Your task to perform on an android device: toggle wifi Image 0: 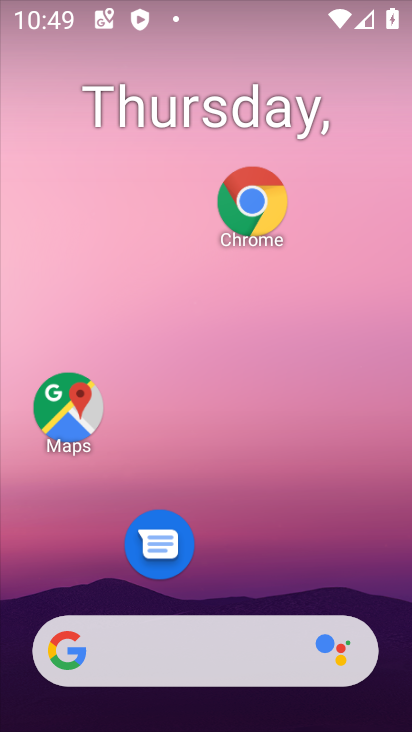
Step 0: drag from (218, 581) to (214, 102)
Your task to perform on an android device: toggle wifi Image 1: 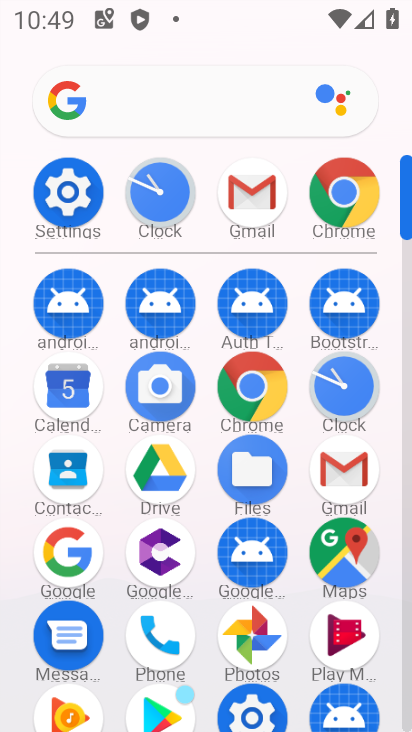
Step 1: click (64, 188)
Your task to perform on an android device: toggle wifi Image 2: 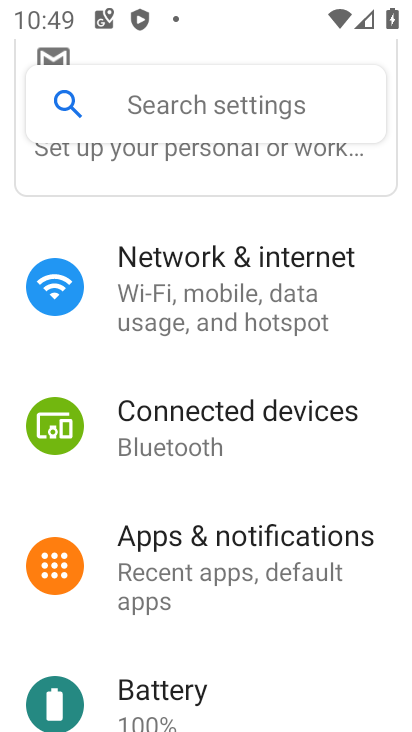
Step 2: click (199, 278)
Your task to perform on an android device: toggle wifi Image 3: 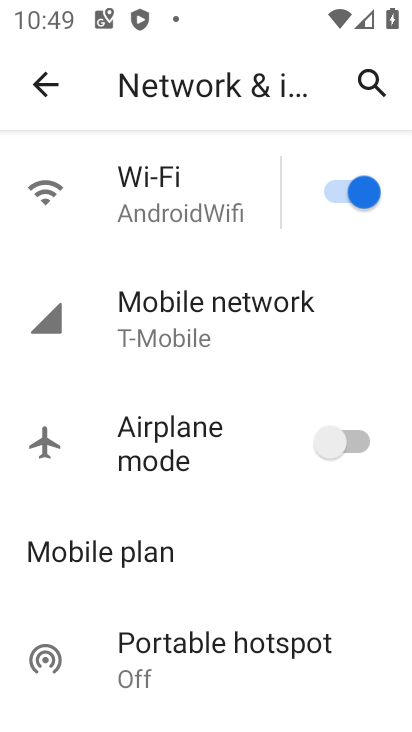
Step 3: click (222, 174)
Your task to perform on an android device: toggle wifi Image 4: 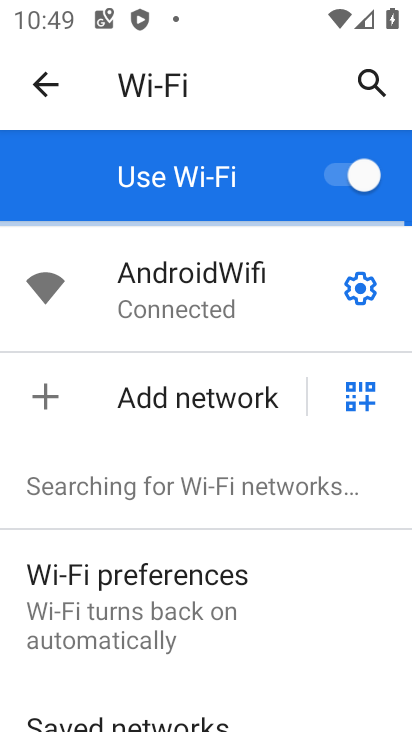
Step 4: task complete